Your task to perform on an android device: change the clock display to digital Image 0: 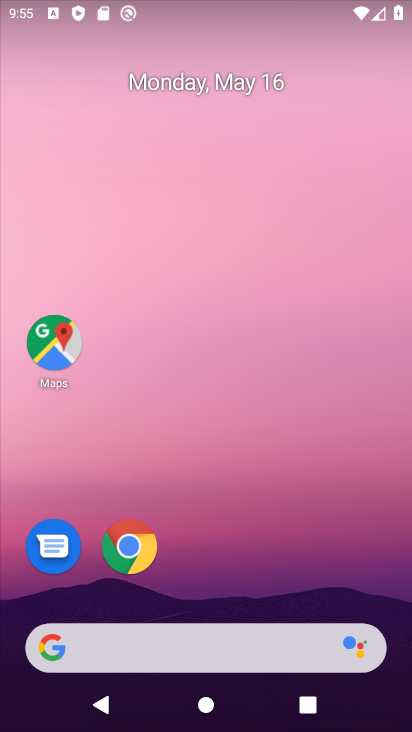
Step 0: drag from (203, 614) to (295, 13)
Your task to perform on an android device: change the clock display to digital Image 1: 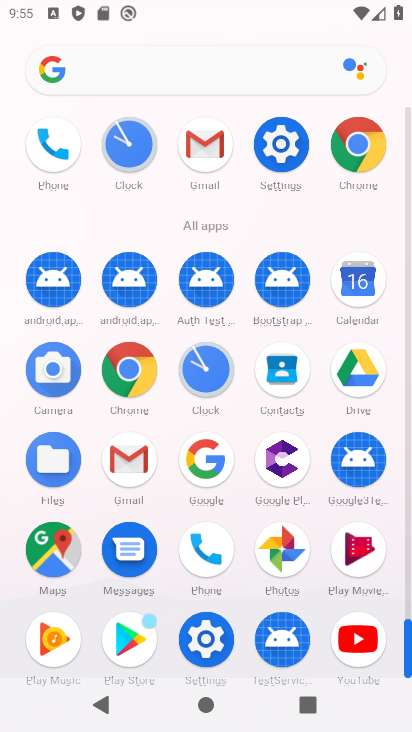
Step 1: click (135, 128)
Your task to perform on an android device: change the clock display to digital Image 2: 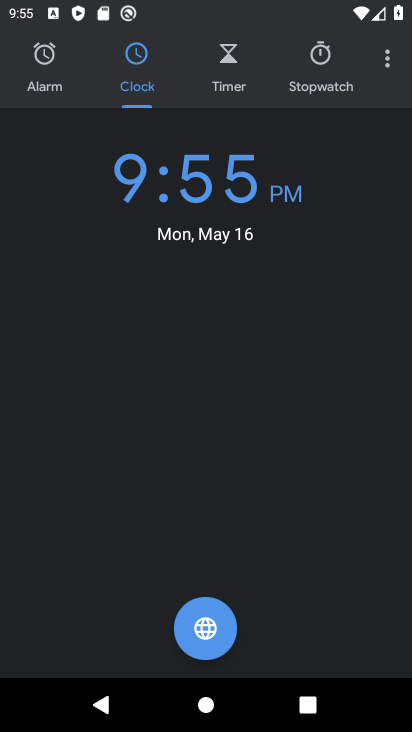
Step 2: click (393, 72)
Your task to perform on an android device: change the clock display to digital Image 3: 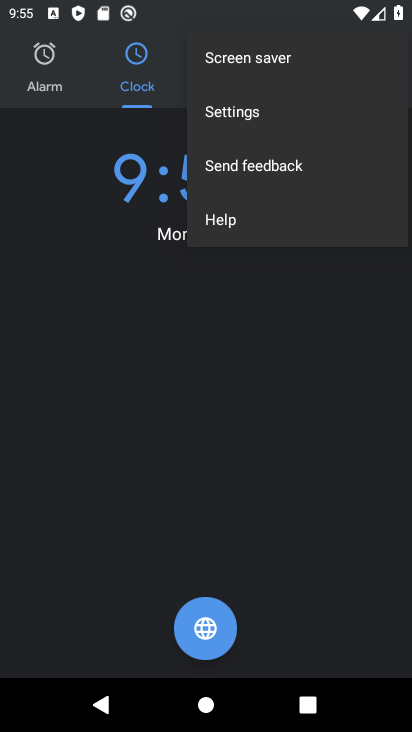
Step 3: click (304, 107)
Your task to perform on an android device: change the clock display to digital Image 4: 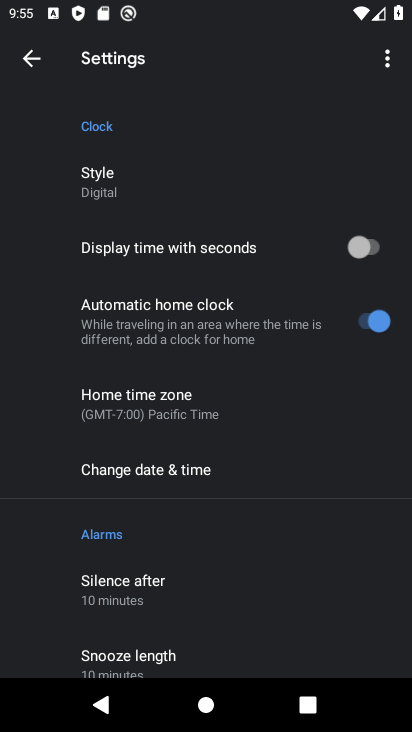
Step 4: task complete